Your task to perform on an android device: turn off location history Image 0: 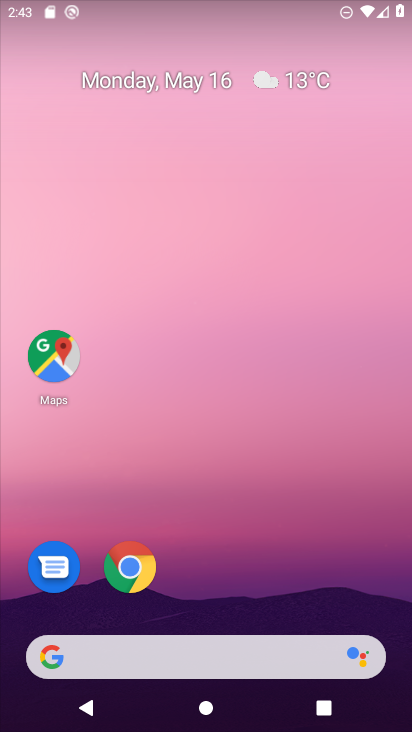
Step 0: drag from (335, 583) to (290, 84)
Your task to perform on an android device: turn off location history Image 1: 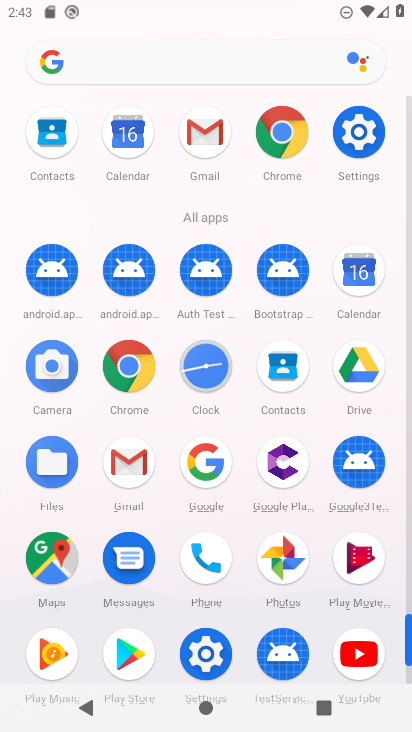
Step 1: click (217, 651)
Your task to perform on an android device: turn off location history Image 2: 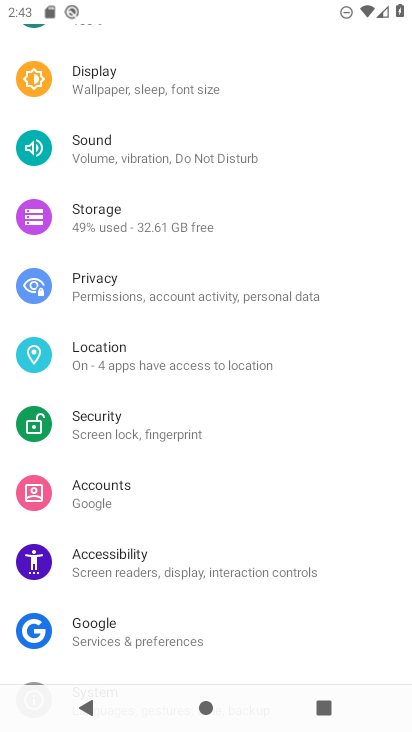
Step 2: click (151, 353)
Your task to perform on an android device: turn off location history Image 3: 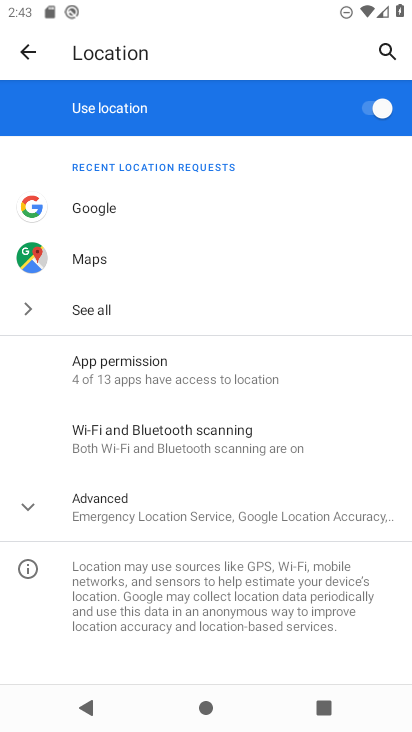
Step 3: click (178, 510)
Your task to perform on an android device: turn off location history Image 4: 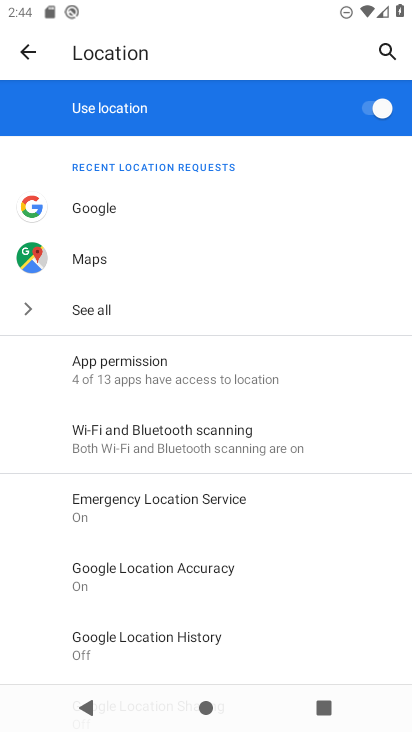
Step 4: click (201, 639)
Your task to perform on an android device: turn off location history Image 5: 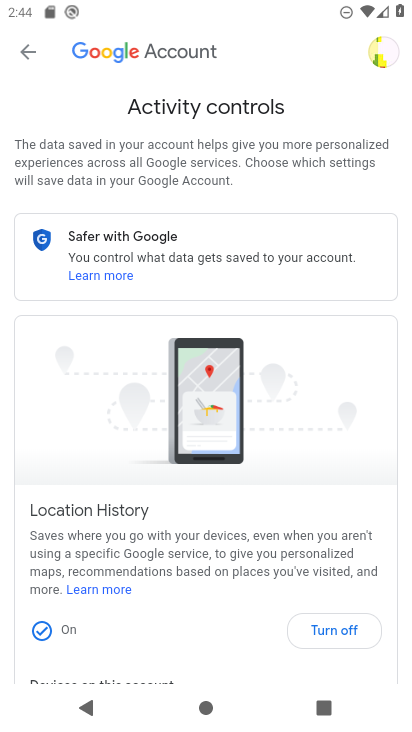
Step 5: click (324, 632)
Your task to perform on an android device: turn off location history Image 6: 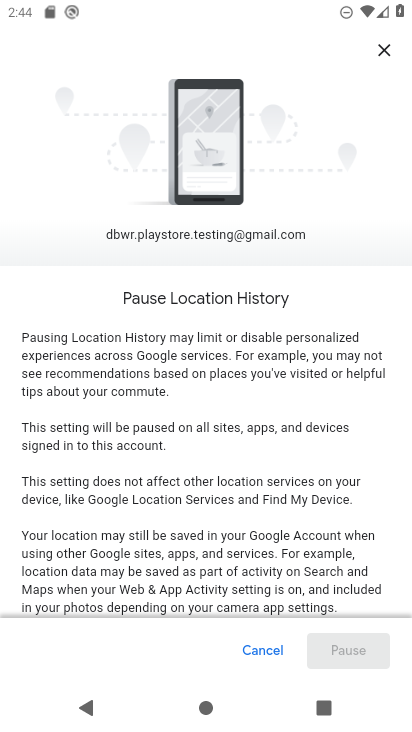
Step 6: drag from (325, 570) to (292, 184)
Your task to perform on an android device: turn off location history Image 7: 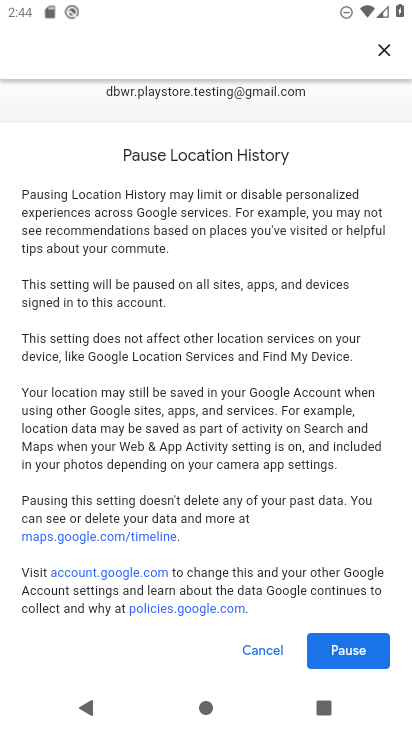
Step 7: click (347, 654)
Your task to perform on an android device: turn off location history Image 8: 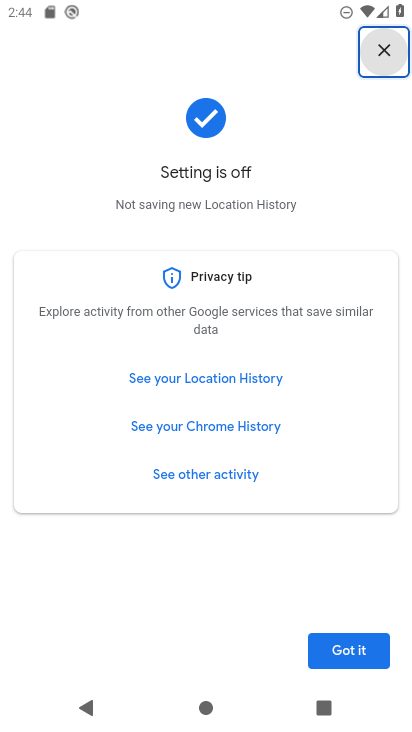
Step 8: click (350, 651)
Your task to perform on an android device: turn off location history Image 9: 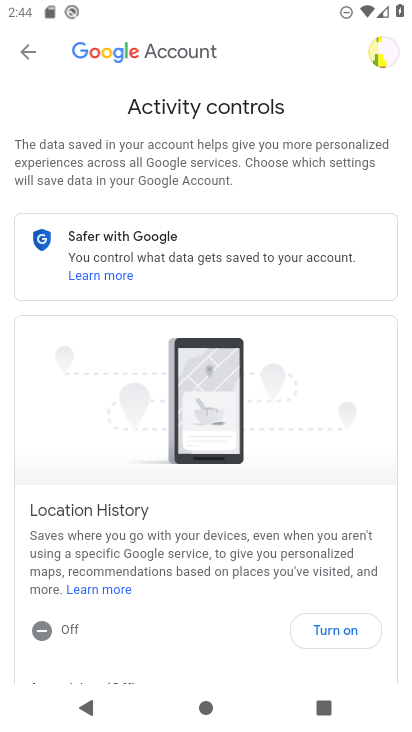
Step 9: task complete